Your task to perform on an android device: Search for desk lamps on article.com Image 0: 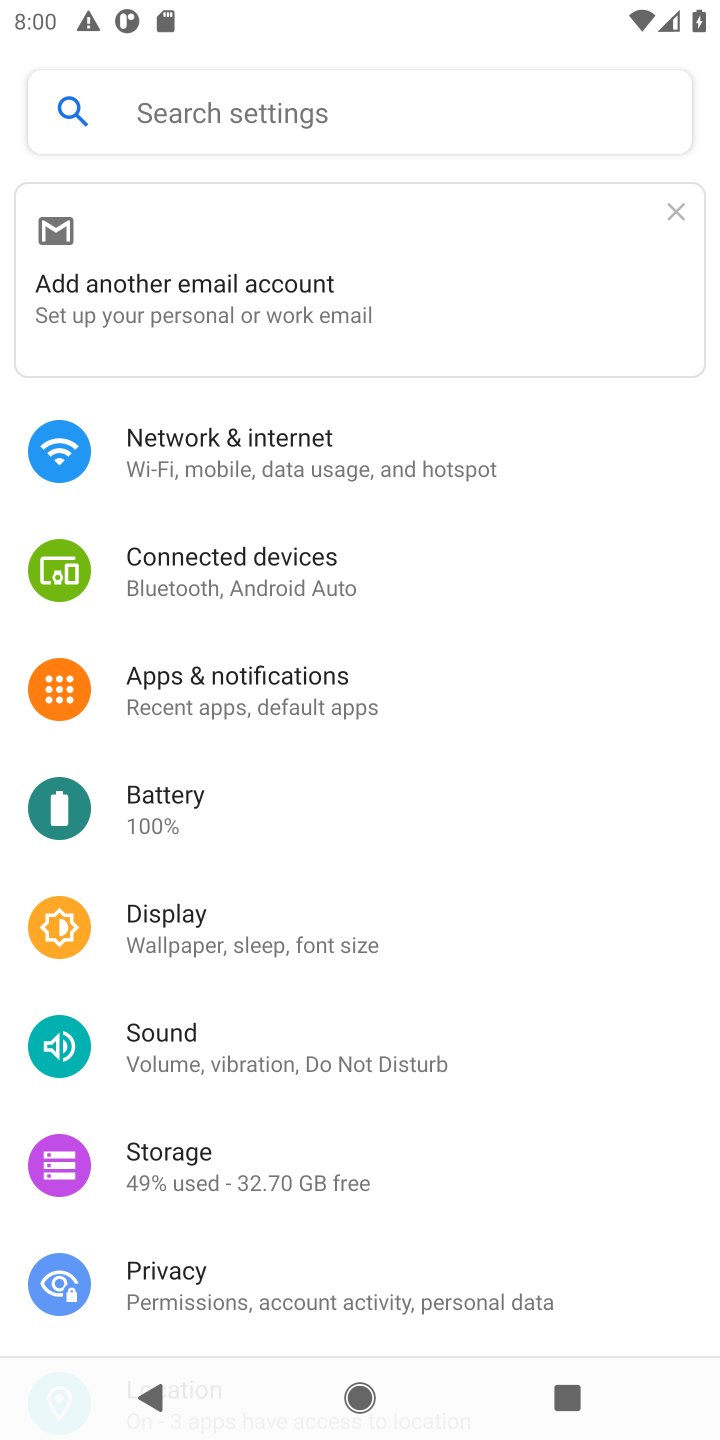
Step 0: press home button
Your task to perform on an android device: Search for desk lamps on article.com Image 1: 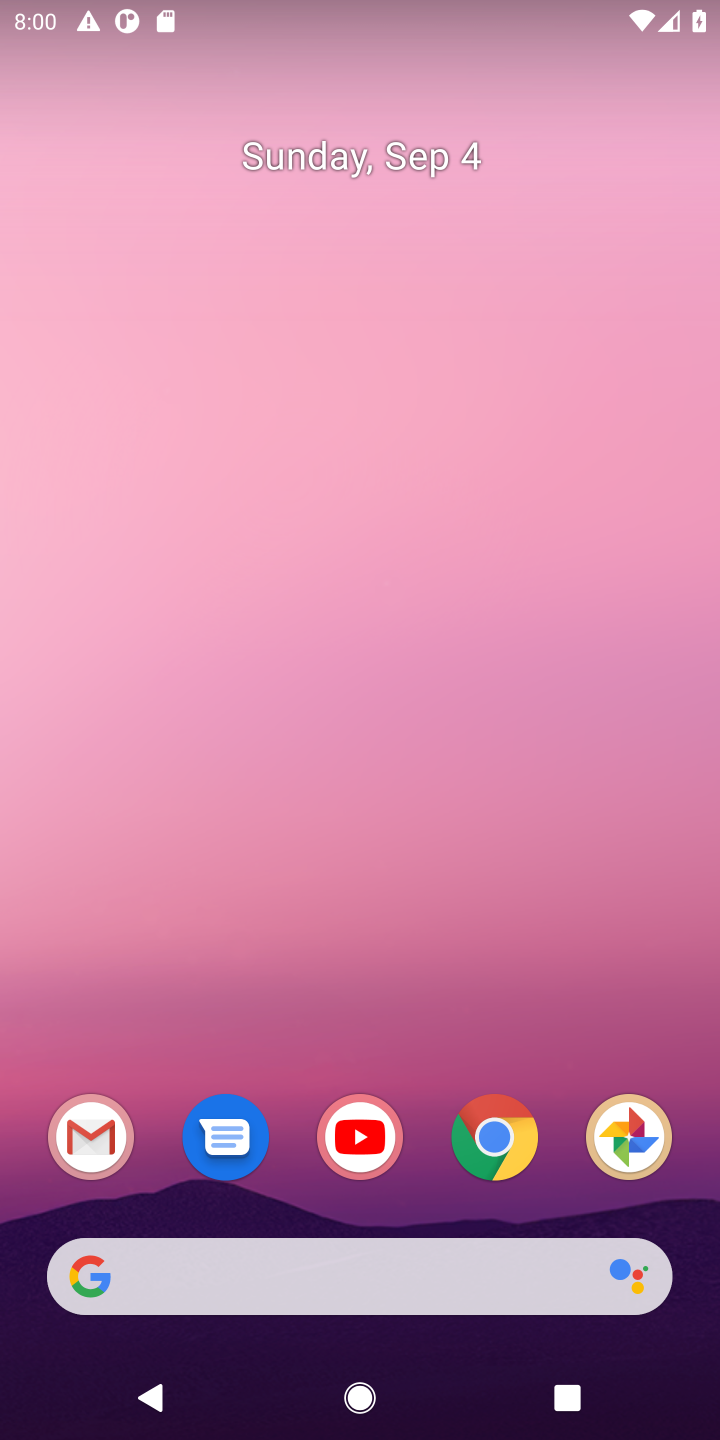
Step 1: click (494, 1139)
Your task to perform on an android device: Search for desk lamps on article.com Image 2: 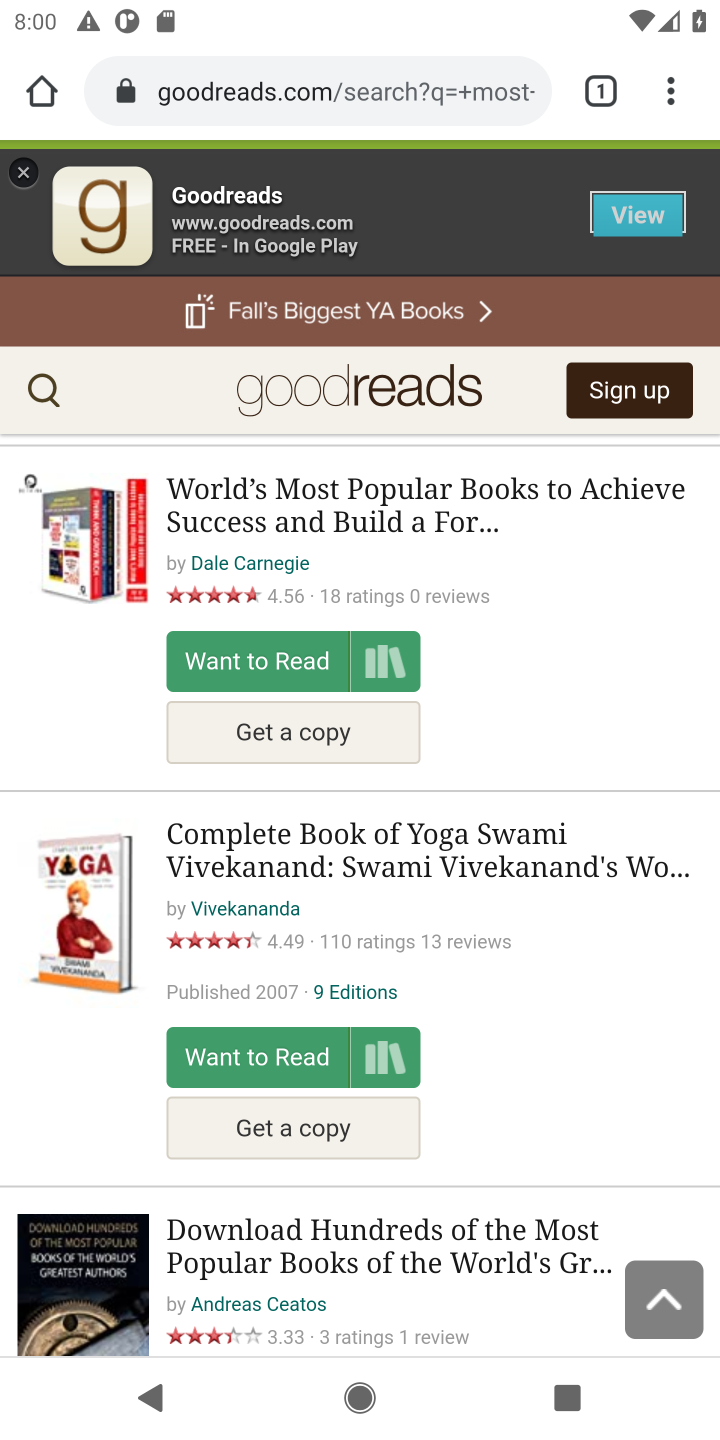
Step 2: click (430, 99)
Your task to perform on an android device: Search for desk lamps on article.com Image 3: 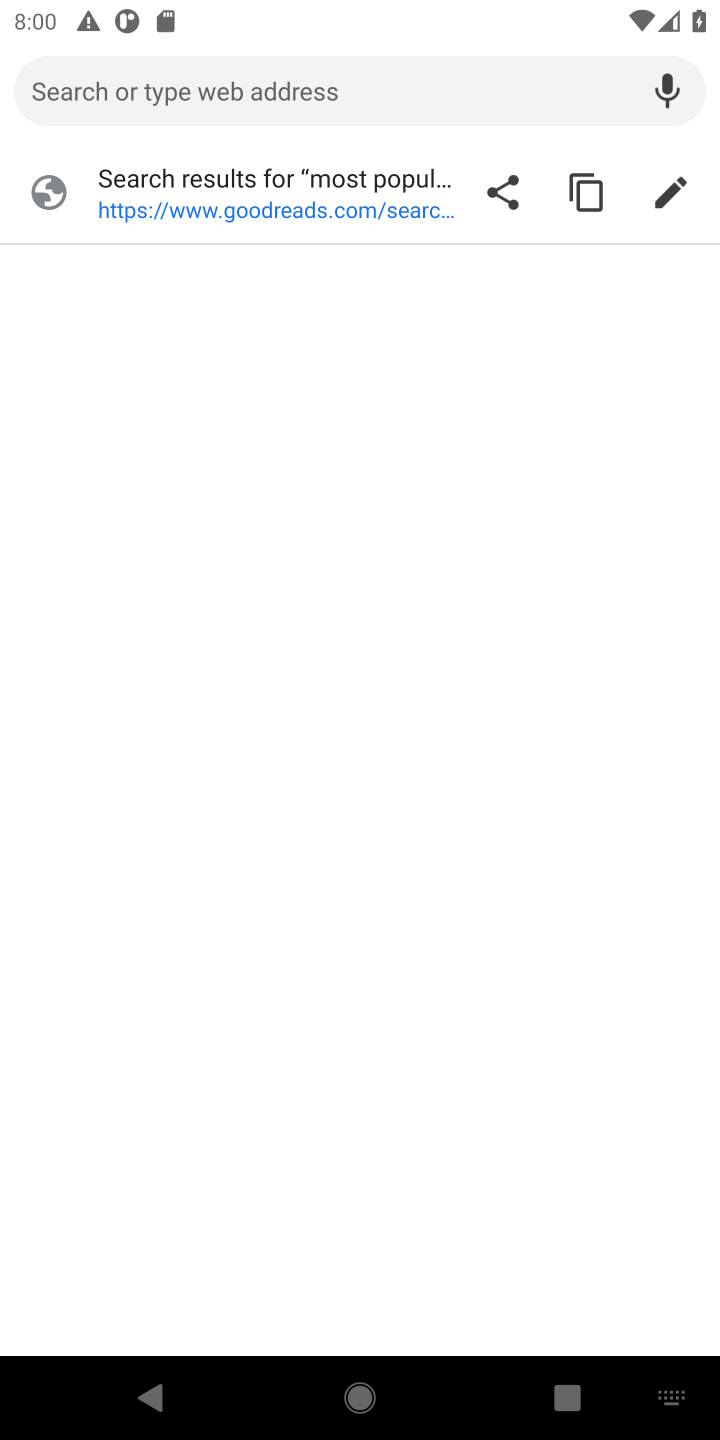
Step 3: type "article.com"
Your task to perform on an android device: Search for desk lamps on article.com Image 4: 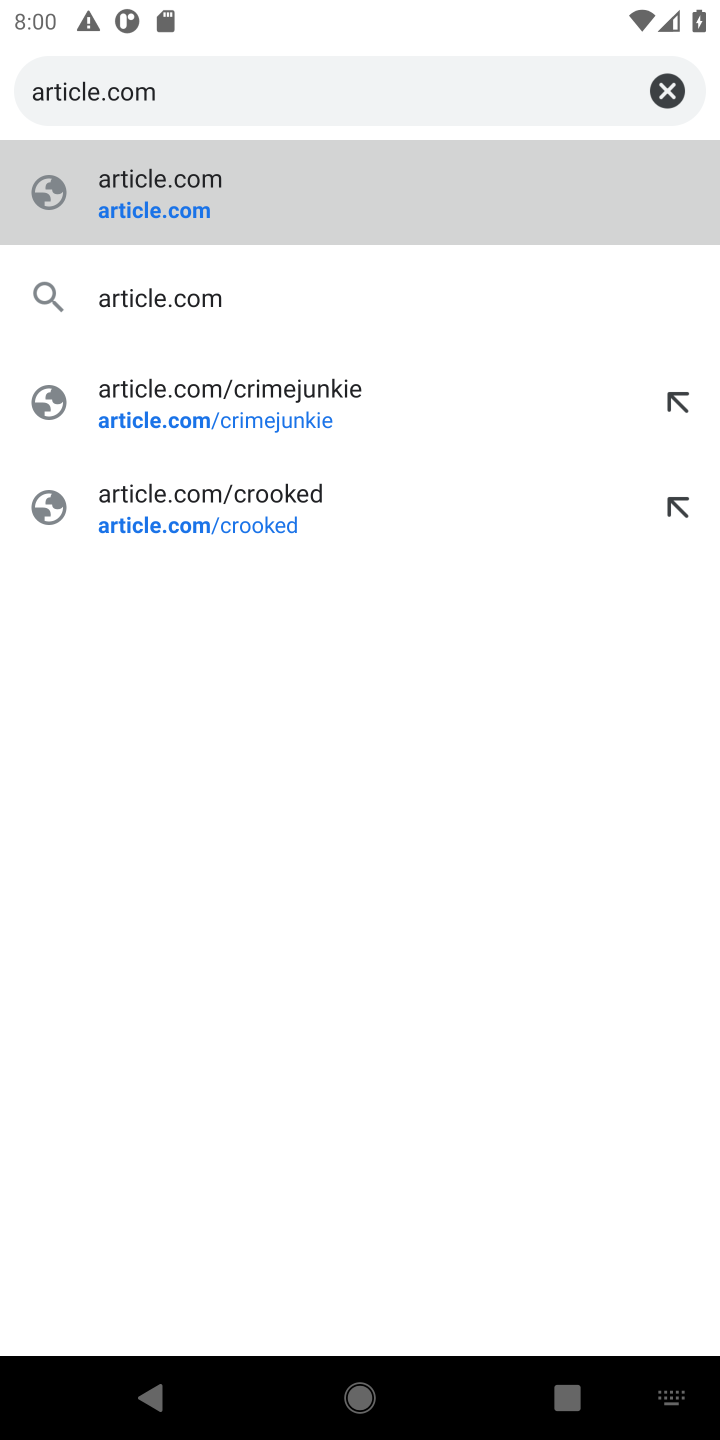
Step 4: click (151, 292)
Your task to perform on an android device: Search for desk lamps on article.com Image 5: 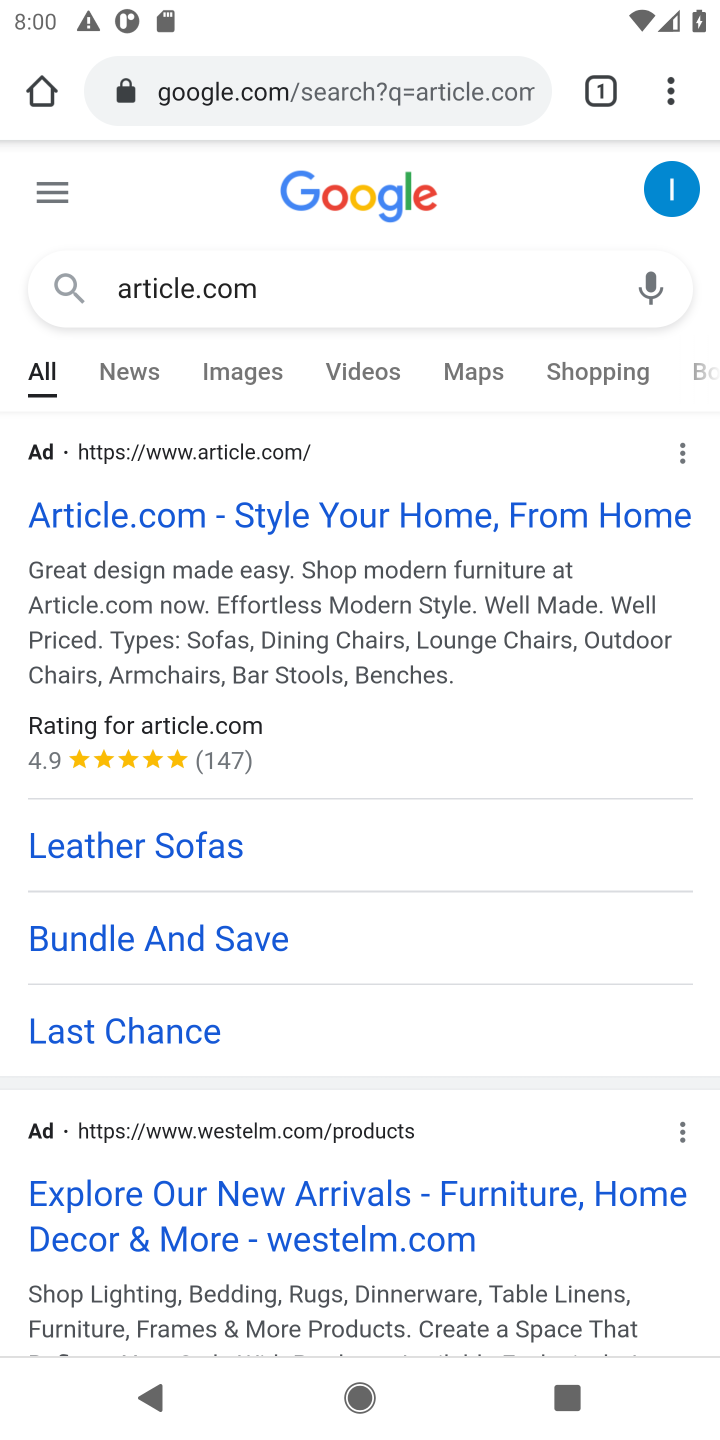
Step 5: drag from (357, 1030) to (510, 529)
Your task to perform on an android device: Search for desk lamps on article.com Image 6: 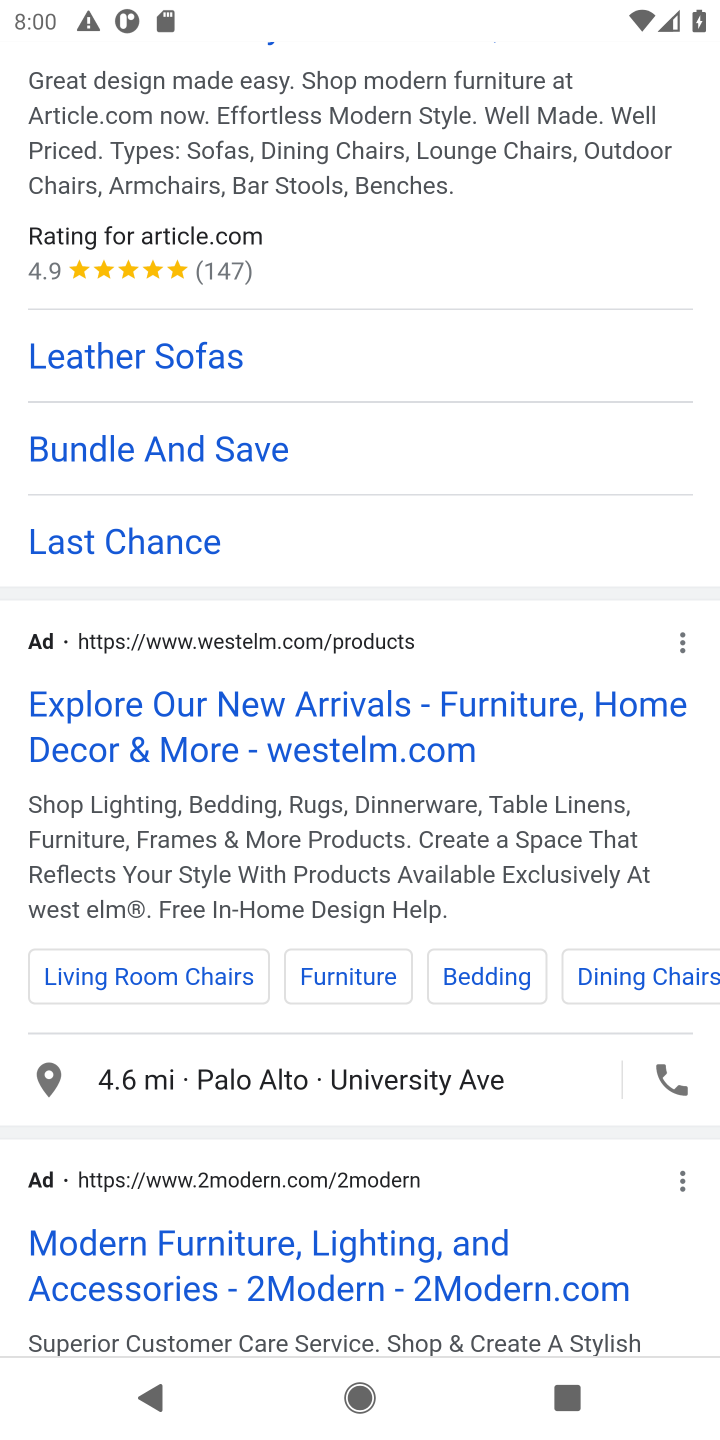
Step 6: drag from (350, 1195) to (553, 676)
Your task to perform on an android device: Search for desk lamps on article.com Image 7: 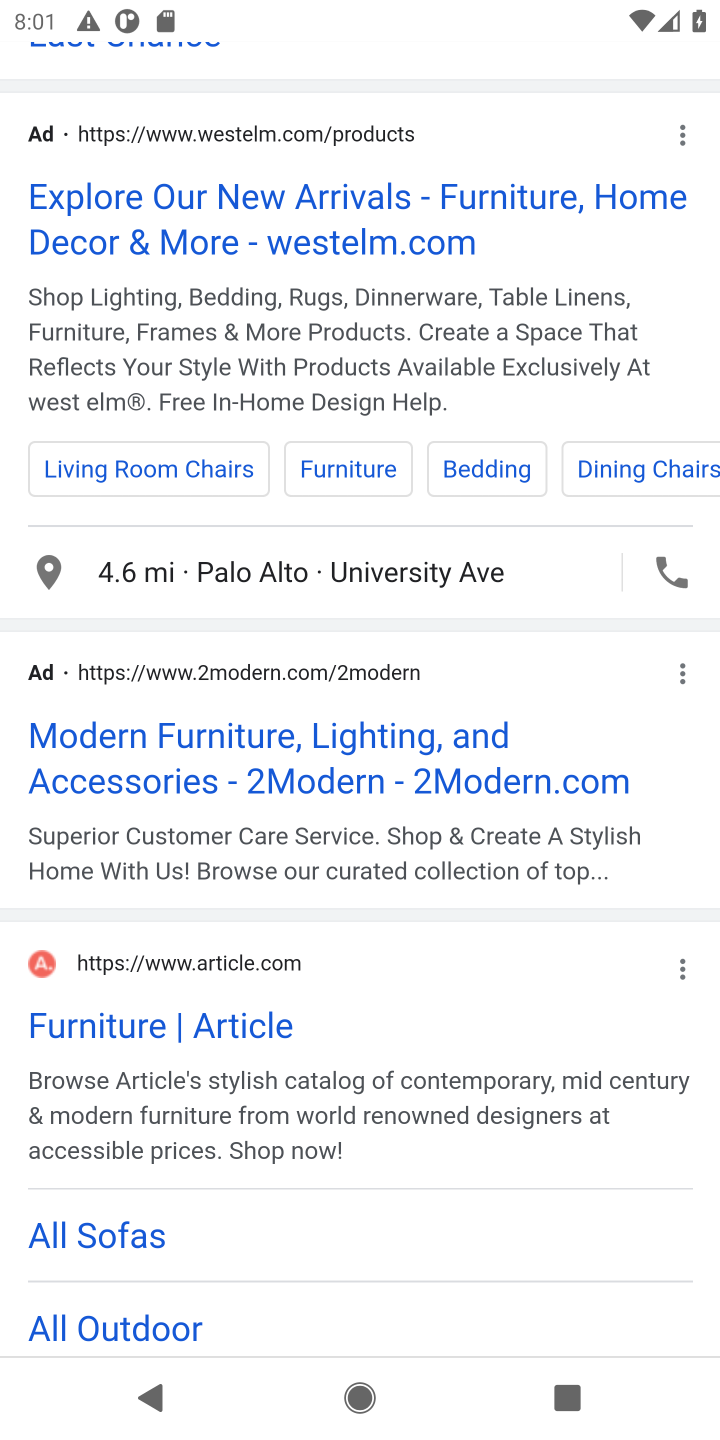
Step 7: click (214, 1042)
Your task to perform on an android device: Search for desk lamps on article.com Image 8: 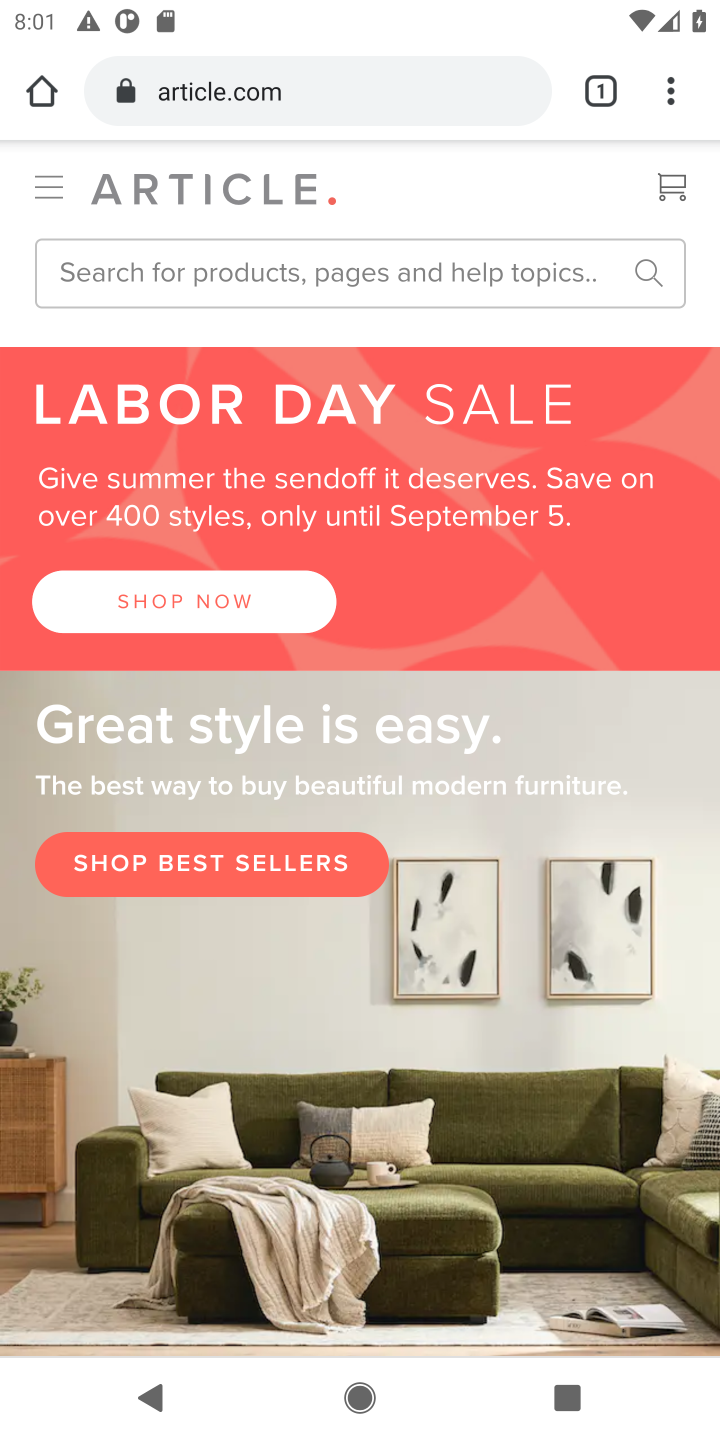
Step 8: click (313, 264)
Your task to perform on an android device: Search for desk lamps on article.com Image 9: 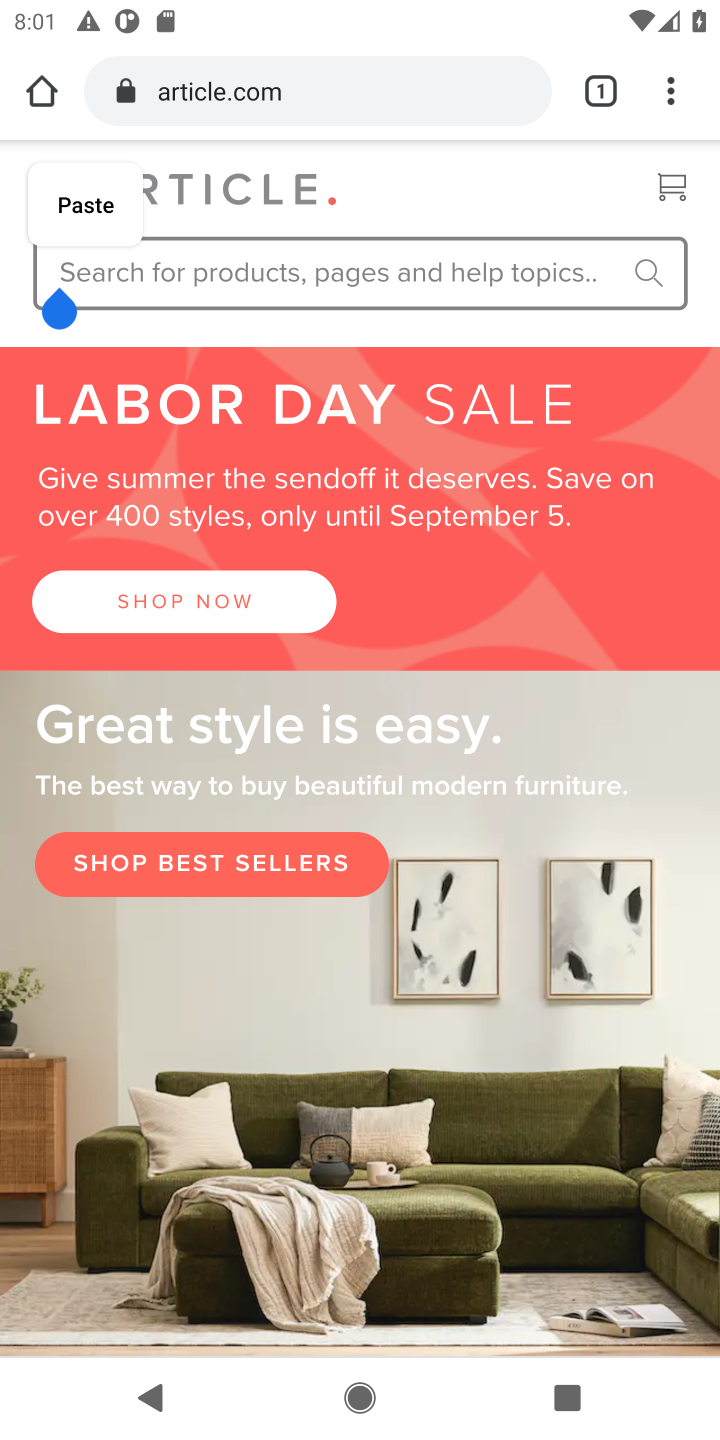
Step 9: type "desk lamps"
Your task to perform on an android device: Search for desk lamps on article.com Image 10: 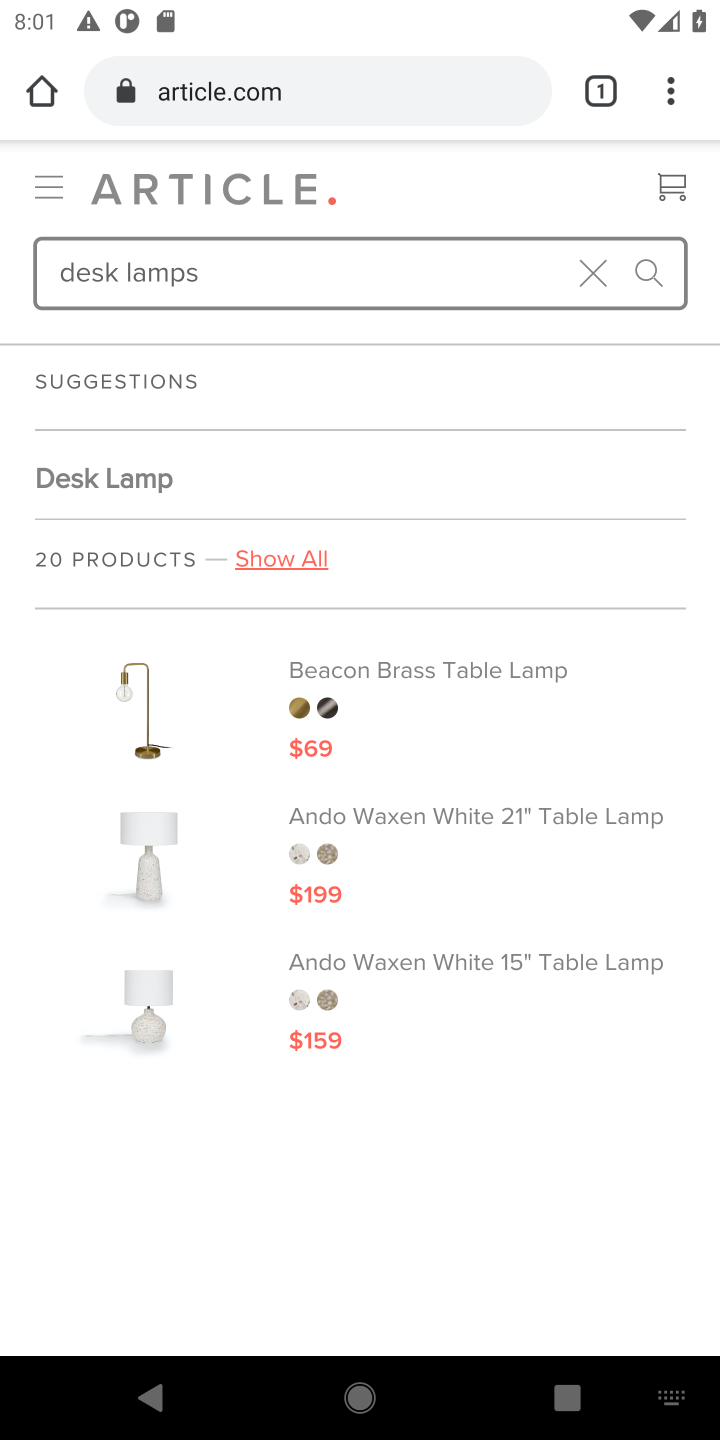
Step 10: click (640, 268)
Your task to perform on an android device: Search for desk lamps on article.com Image 11: 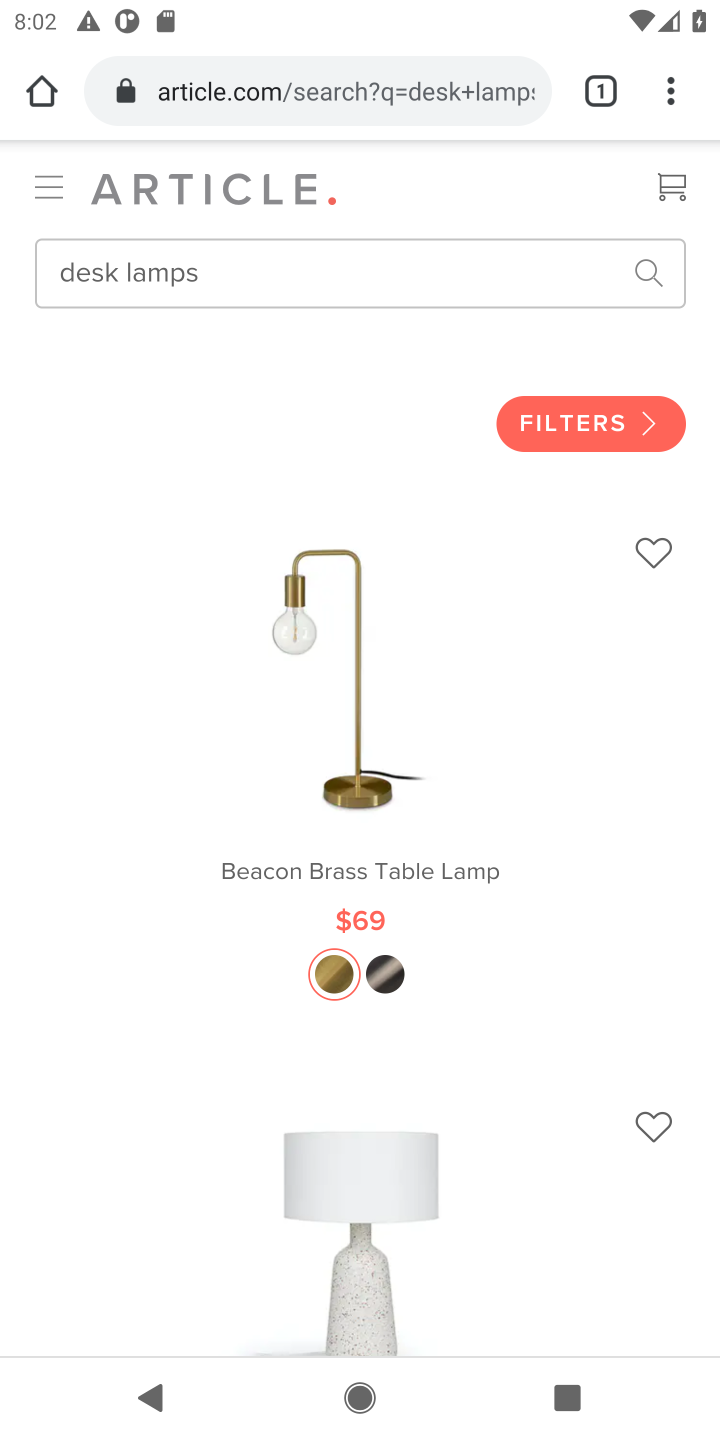
Step 11: click (521, 725)
Your task to perform on an android device: Search for desk lamps on article.com Image 12: 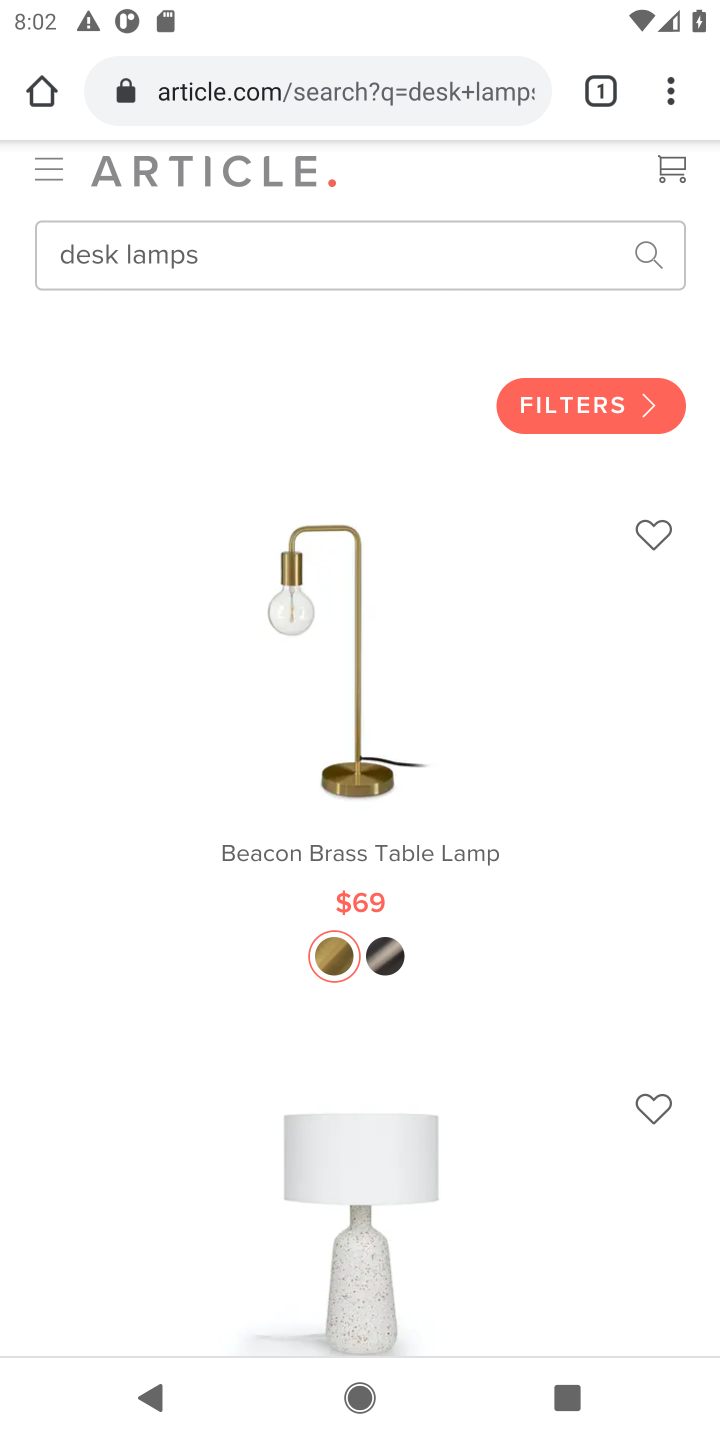
Step 12: task complete